Your task to perform on an android device: star an email in the gmail app Image 0: 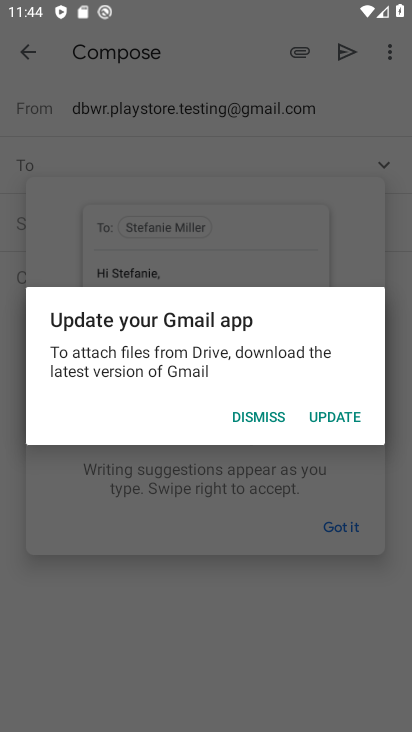
Step 0: press back button
Your task to perform on an android device: star an email in the gmail app Image 1: 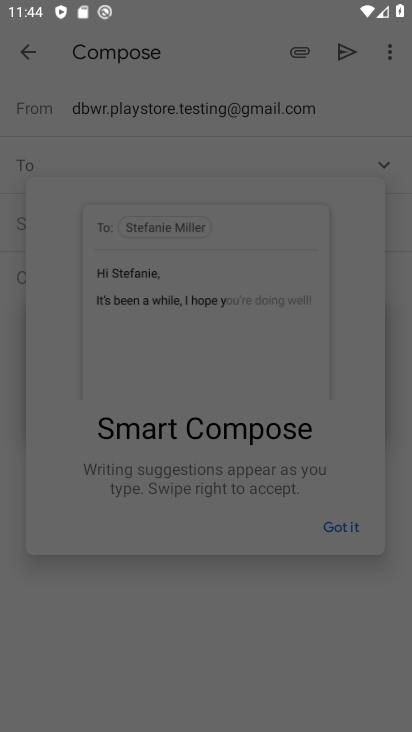
Step 1: press home button
Your task to perform on an android device: star an email in the gmail app Image 2: 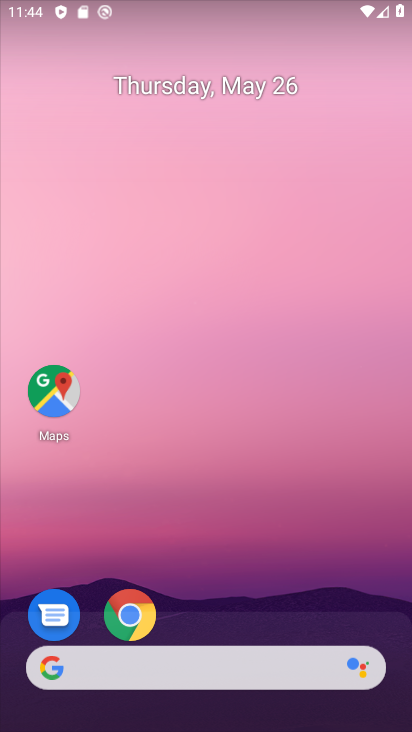
Step 2: drag from (341, 561) to (360, 85)
Your task to perform on an android device: star an email in the gmail app Image 3: 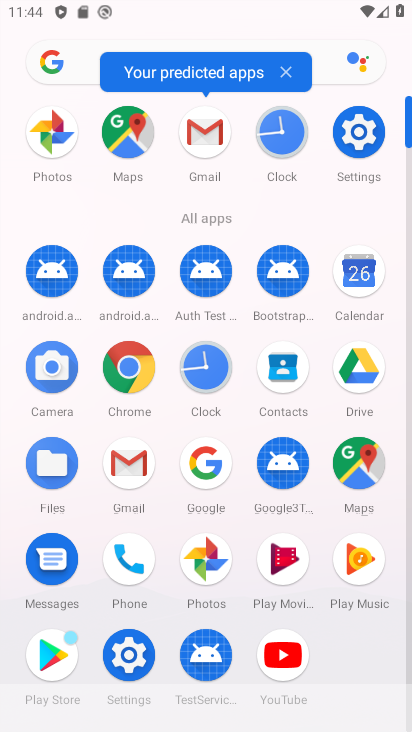
Step 3: click (131, 469)
Your task to perform on an android device: star an email in the gmail app Image 4: 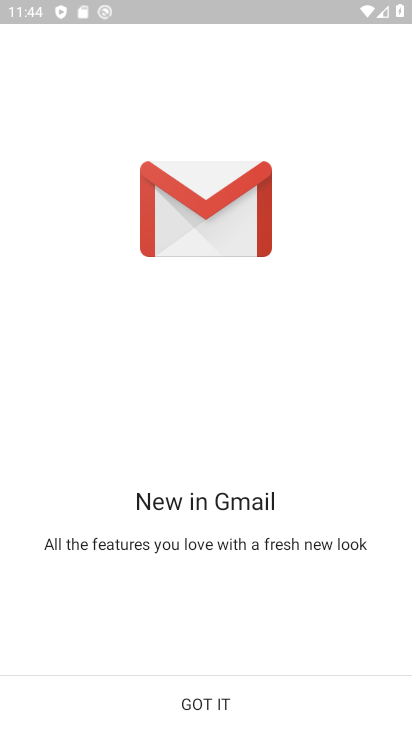
Step 4: click (221, 703)
Your task to perform on an android device: star an email in the gmail app Image 5: 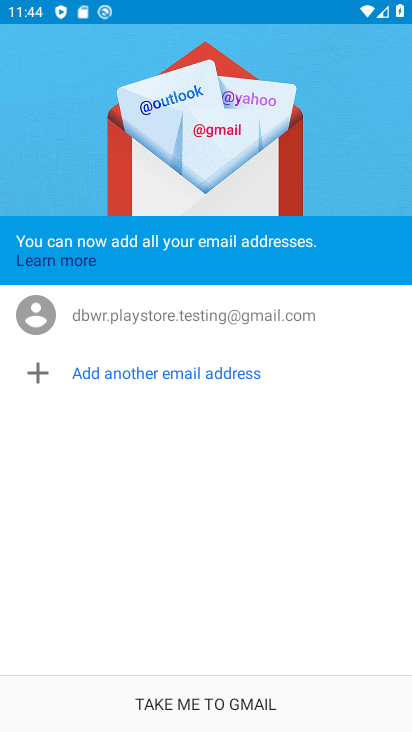
Step 5: click (217, 706)
Your task to perform on an android device: star an email in the gmail app Image 6: 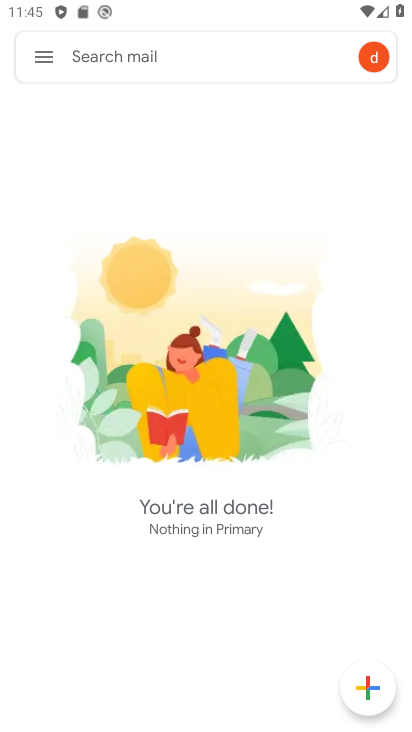
Step 6: click (39, 49)
Your task to perform on an android device: star an email in the gmail app Image 7: 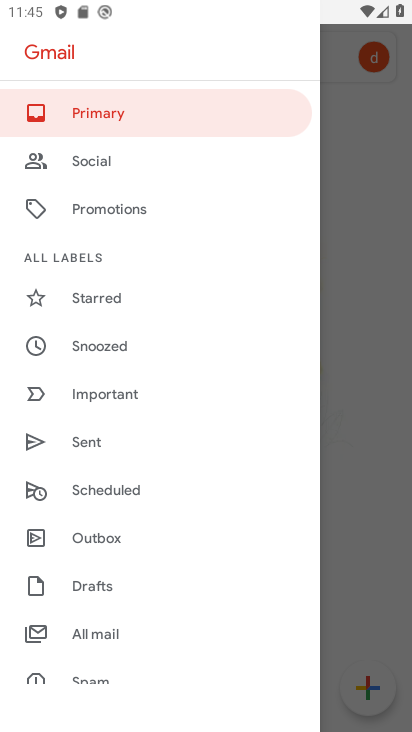
Step 7: drag from (218, 577) to (235, 437)
Your task to perform on an android device: star an email in the gmail app Image 8: 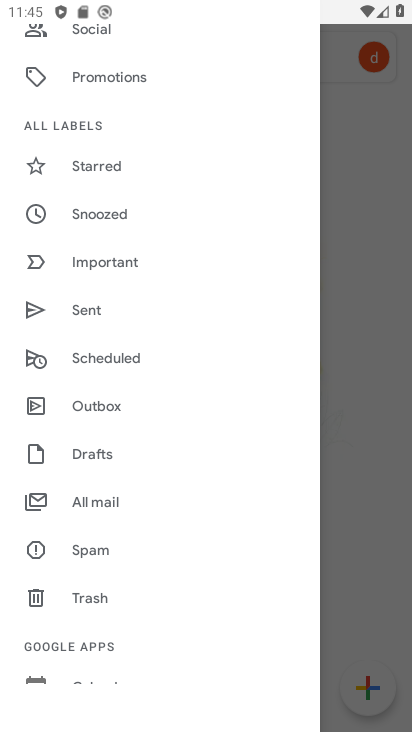
Step 8: drag from (231, 590) to (233, 393)
Your task to perform on an android device: star an email in the gmail app Image 9: 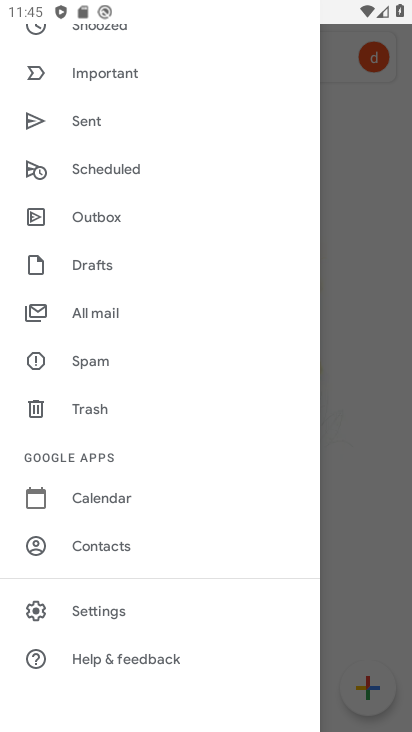
Step 9: drag from (247, 308) to (231, 526)
Your task to perform on an android device: star an email in the gmail app Image 10: 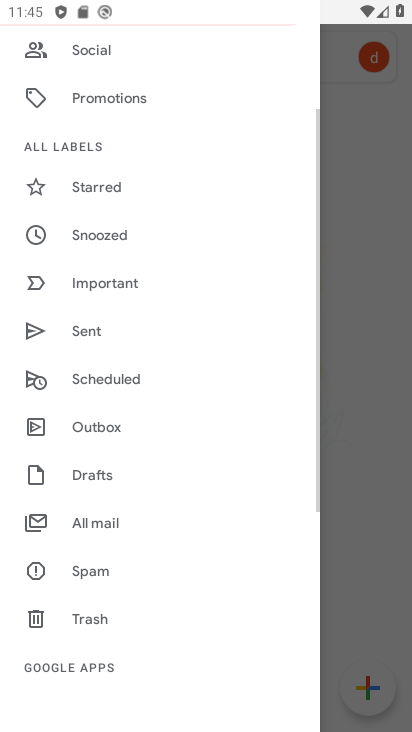
Step 10: drag from (224, 177) to (211, 448)
Your task to perform on an android device: star an email in the gmail app Image 11: 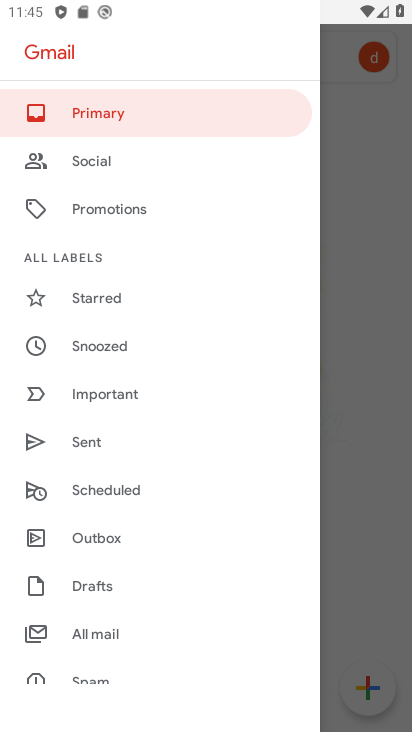
Step 11: click (354, 377)
Your task to perform on an android device: star an email in the gmail app Image 12: 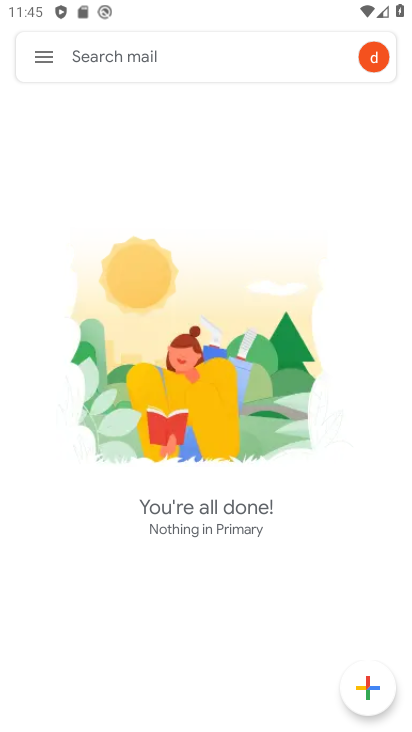
Step 12: task complete